Your task to perform on an android device: Open calendar and show me the fourth week of next month Image 0: 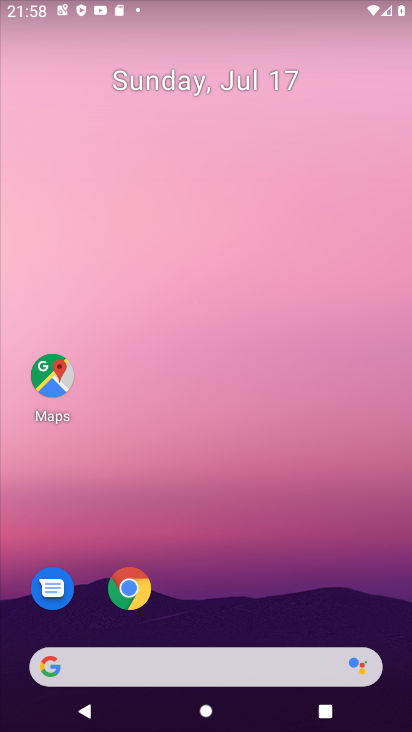
Step 0: press home button
Your task to perform on an android device: Open calendar and show me the fourth week of next month Image 1: 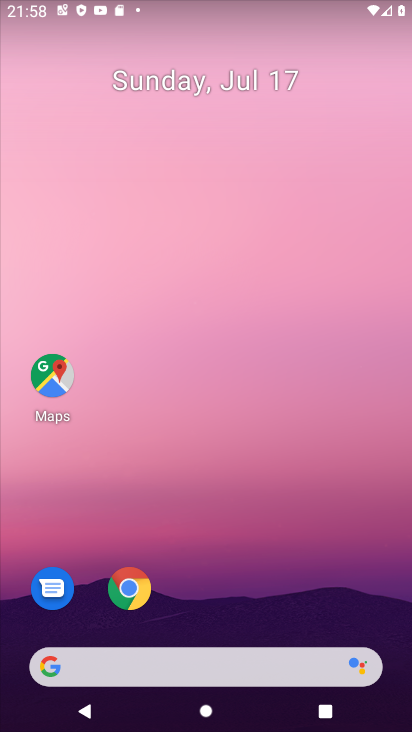
Step 1: drag from (338, 616) to (340, 255)
Your task to perform on an android device: Open calendar and show me the fourth week of next month Image 2: 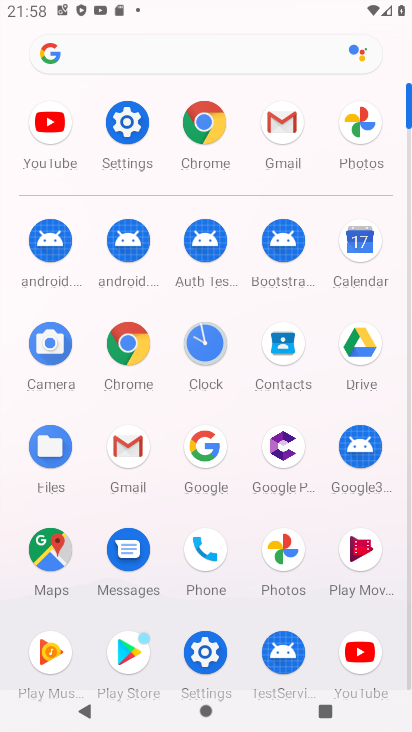
Step 2: click (359, 260)
Your task to perform on an android device: Open calendar and show me the fourth week of next month Image 3: 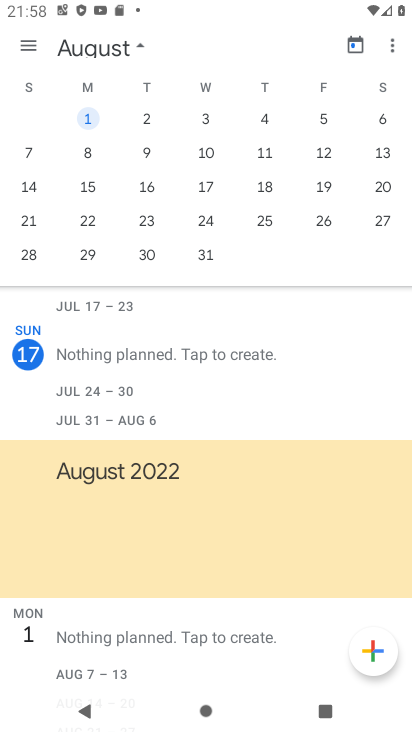
Step 3: drag from (294, 154) to (338, 308)
Your task to perform on an android device: Open calendar and show me the fourth week of next month Image 4: 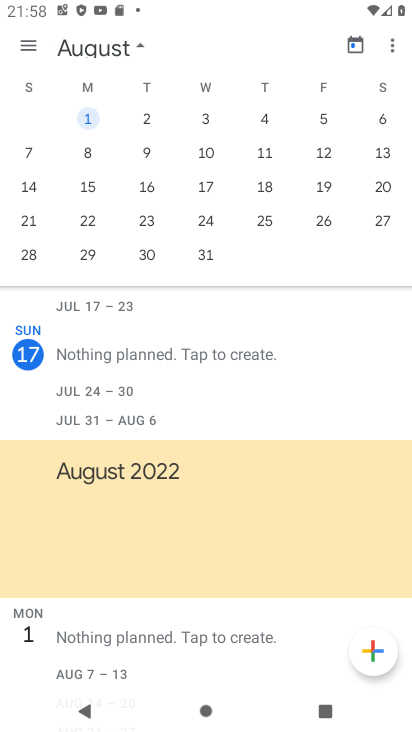
Step 4: click (87, 228)
Your task to perform on an android device: Open calendar and show me the fourth week of next month Image 5: 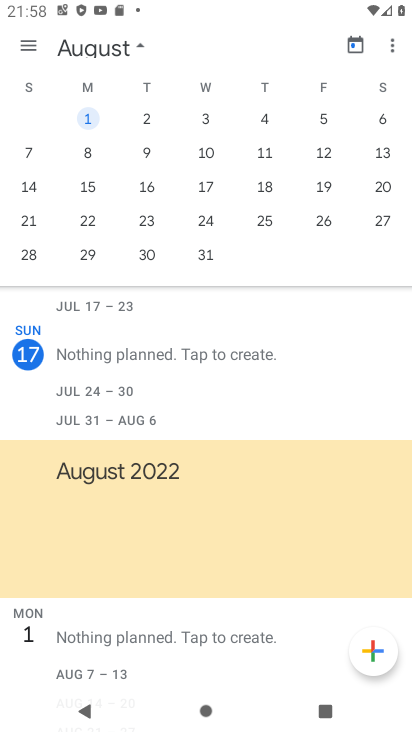
Step 5: click (87, 228)
Your task to perform on an android device: Open calendar and show me the fourth week of next month Image 6: 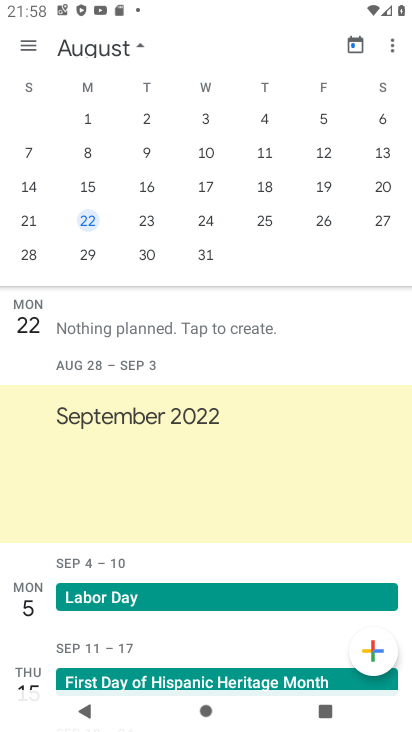
Step 6: task complete